Your task to perform on an android device: check google app version Image 0: 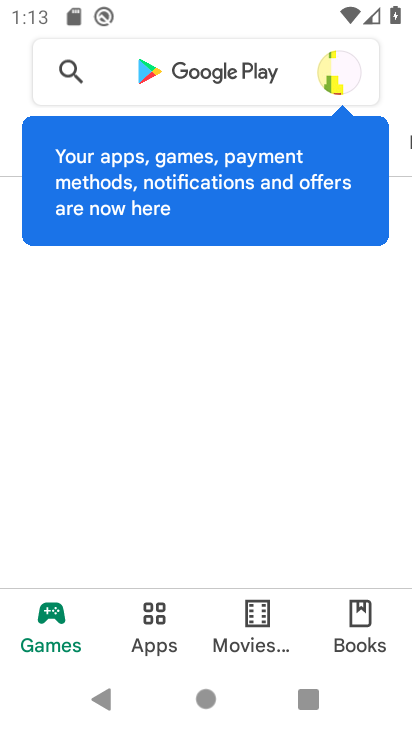
Step 0: press home button
Your task to perform on an android device: check google app version Image 1: 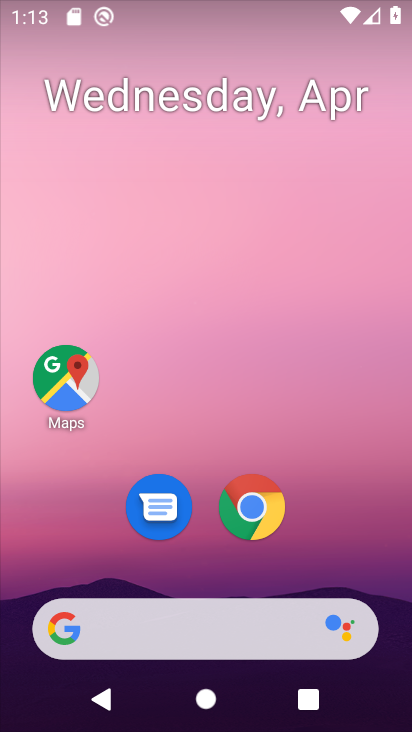
Step 1: drag from (257, 688) to (320, 0)
Your task to perform on an android device: check google app version Image 2: 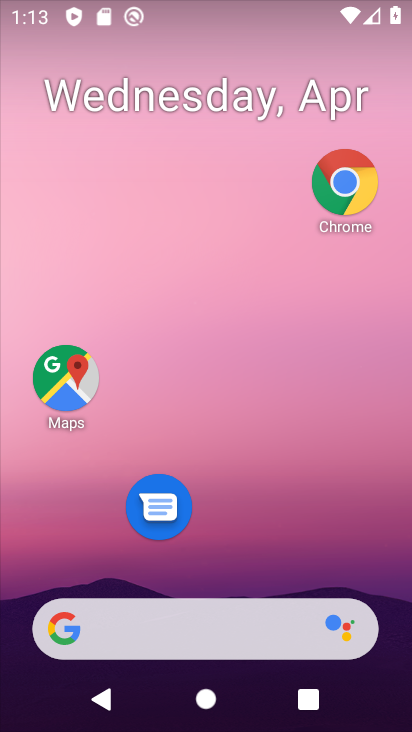
Step 2: drag from (247, 708) to (184, 1)
Your task to perform on an android device: check google app version Image 3: 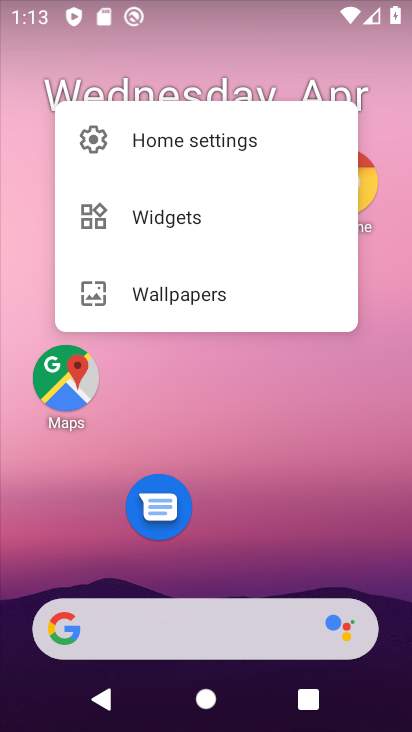
Step 3: drag from (255, 706) to (315, 3)
Your task to perform on an android device: check google app version Image 4: 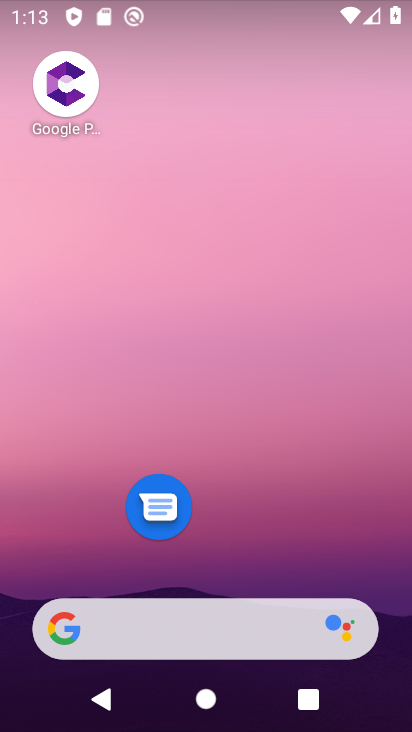
Step 4: drag from (255, 713) to (282, 5)
Your task to perform on an android device: check google app version Image 5: 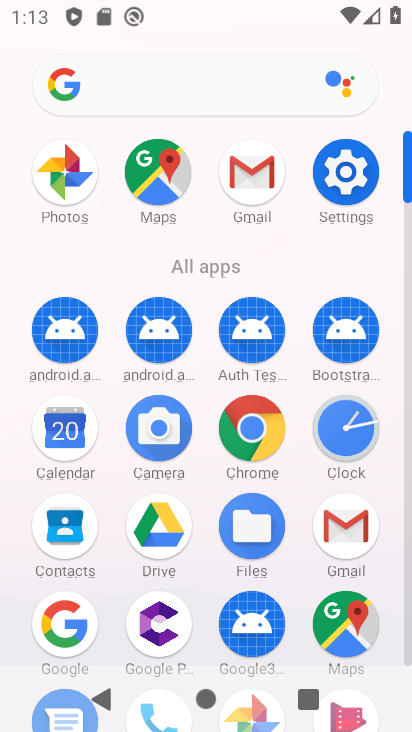
Step 5: click (81, 634)
Your task to perform on an android device: check google app version Image 6: 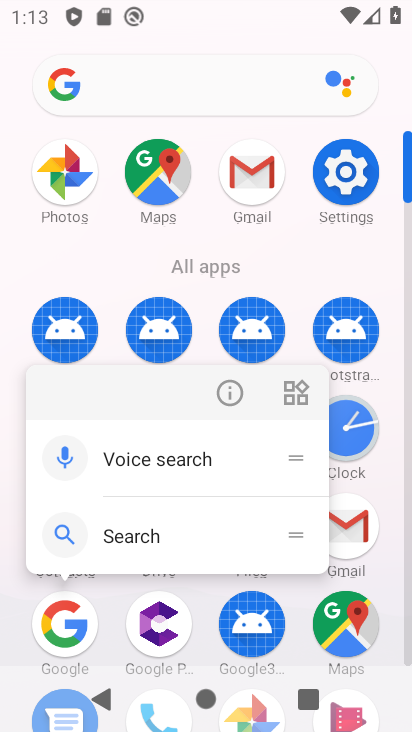
Step 6: click (229, 403)
Your task to perform on an android device: check google app version Image 7: 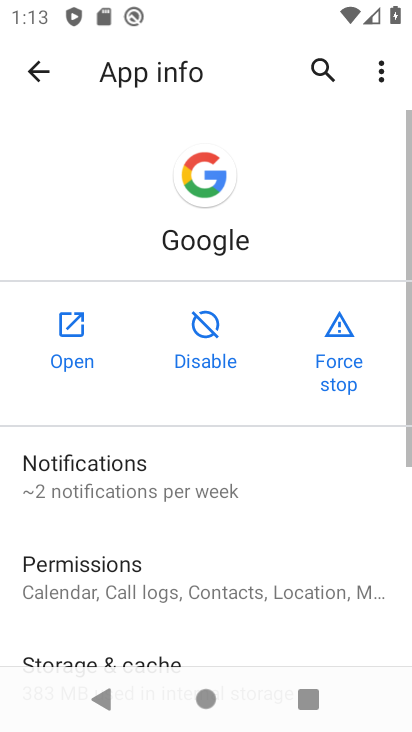
Step 7: drag from (254, 464) to (321, 71)
Your task to perform on an android device: check google app version Image 8: 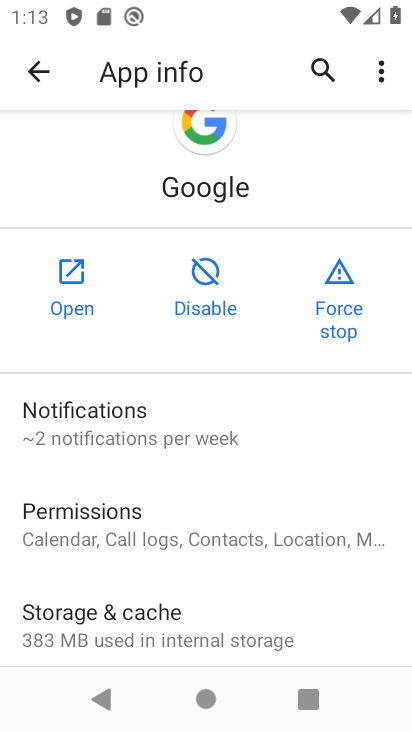
Step 8: drag from (316, 628) to (381, 169)
Your task to perform on an android device: check google app version Image 9: 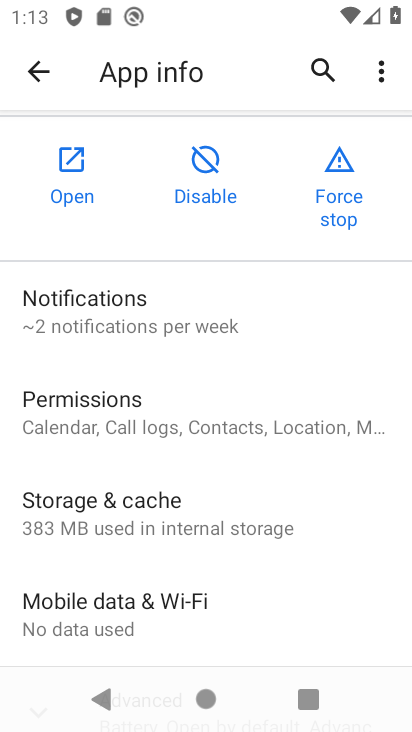
Step 9: drag from (332, 333) to (395, 29)
Your task to perform on an android device: check google app version Image 10: 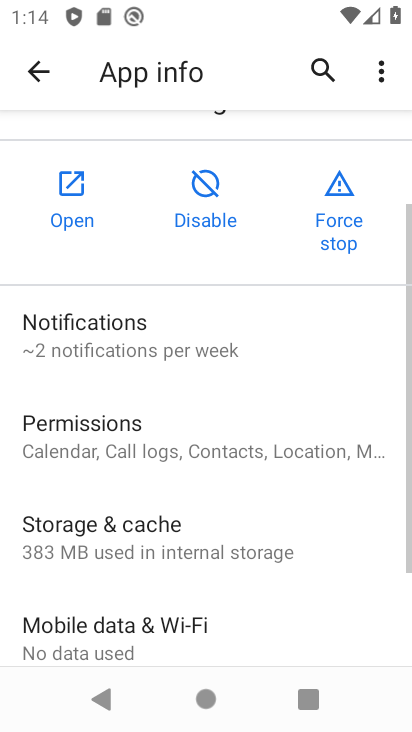
Step 10: drag from (303, 493) to (300, 15)
Your task to perform on an android device: check google app version Image 11: 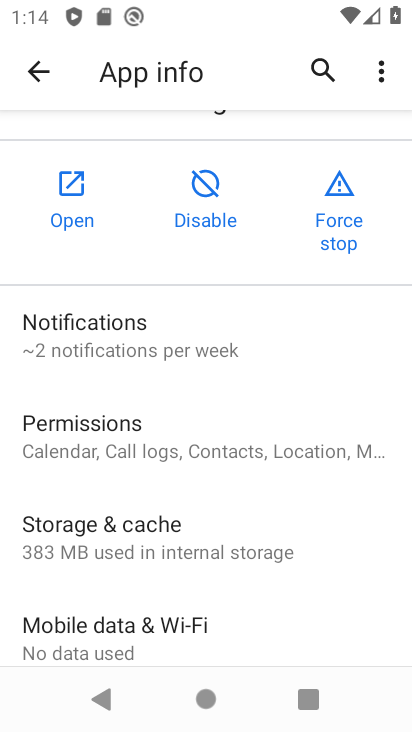
Step 11: drag from (301, 462) to (319, 1)
Your task to perform on an android device: check google app version Image 12: 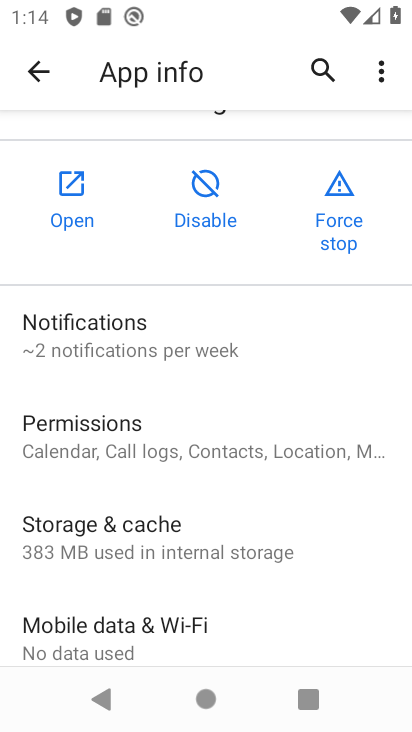
Step 12: drag from (273, 601) to (387, 61)
Your task to perform on an android device: check google app version Image 13: 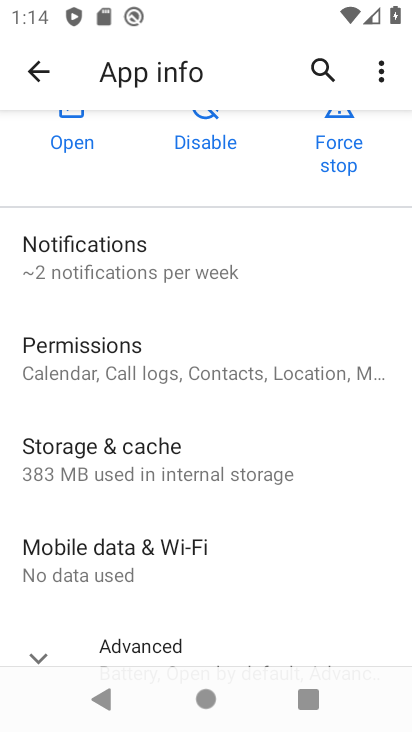
Step 13: drag from (236, 548) to (361, 19)
Your task to perform on an android device: check google app version Image 14: 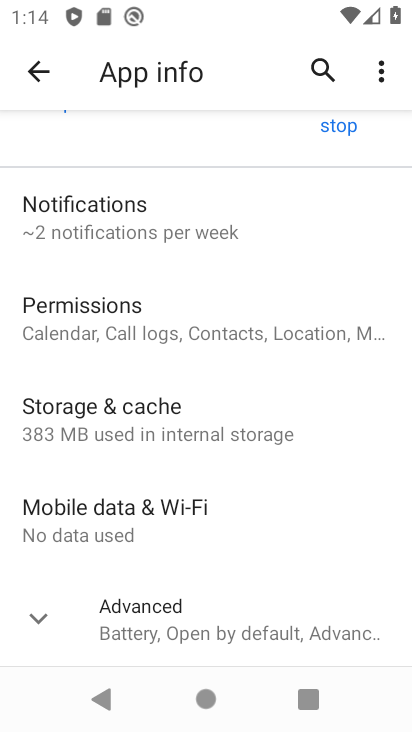
Step 14: click (184, 631)
Your task to perform on an android device: check google app version Image 15: 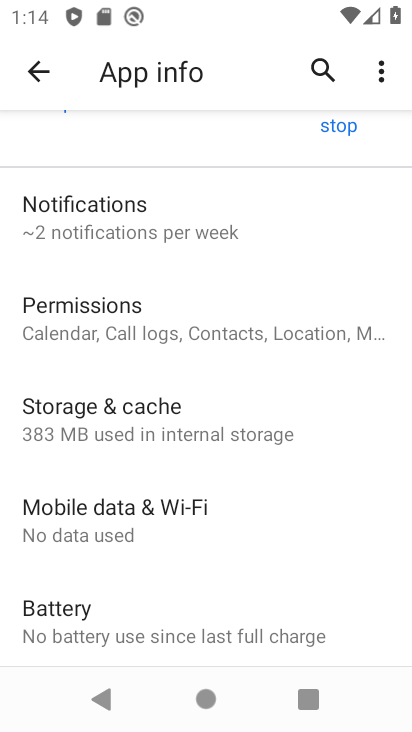
Step 15: task complete